Your task to perform on an android device: open a bookmark in the chrome app Image 0: 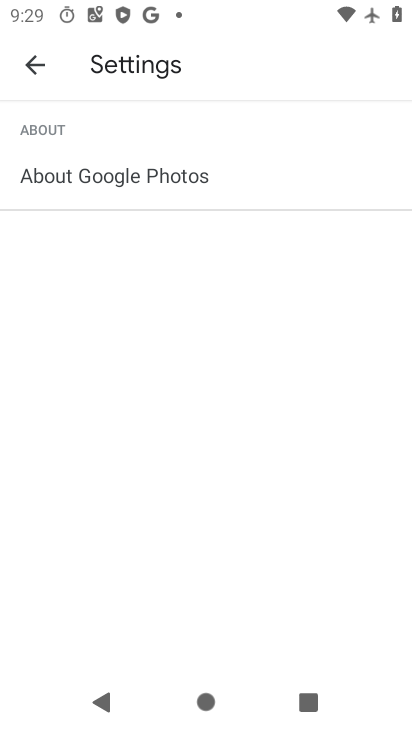
Step 0: press home button
Your task to perform on an android device: open a bookmark in the chrome app Image 1: 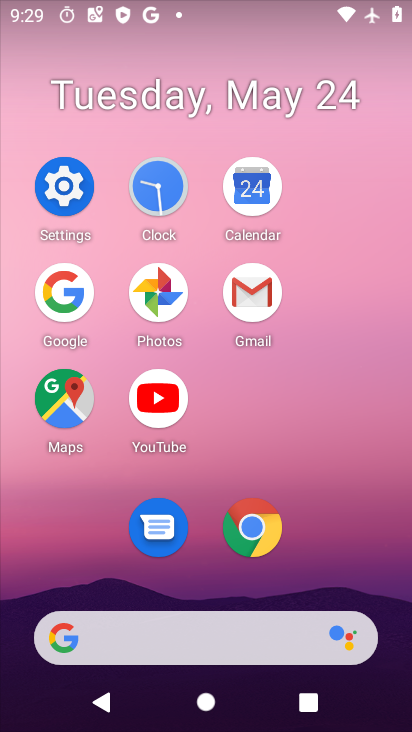
Step 1: click (260, 535)
Your task to perform on an android device: open a bookmark in the chrome app Image 2: 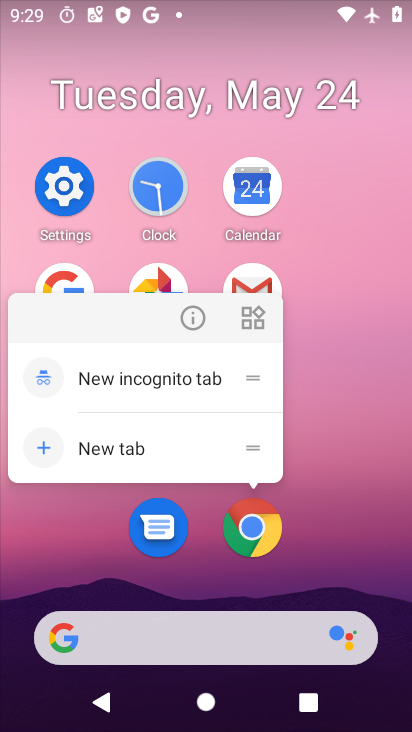
Step 2: click (250, 523)
Your task to perform on an android device: open a bookmark in the chrome app Image 3: 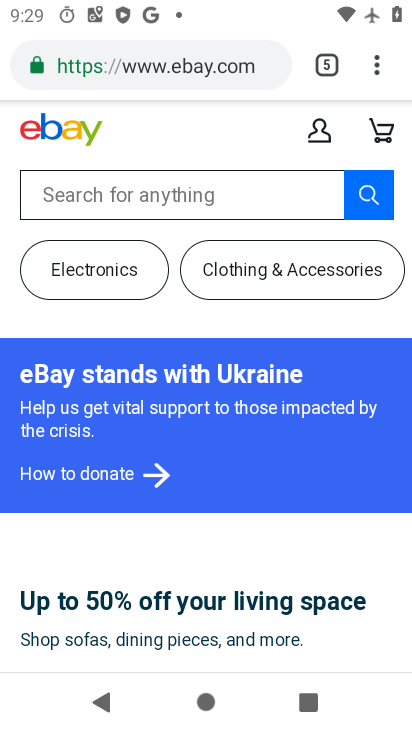
Step 3: click (379, 75)
Your task to perform on an android device: open a bookmark in the chrome app Image 4: 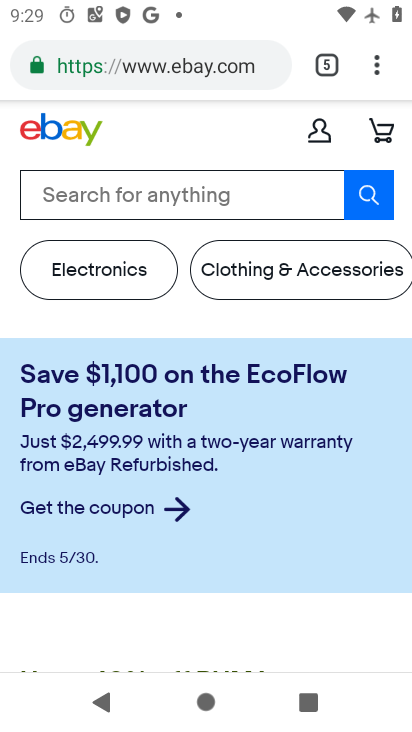
Step 4: click (373, 71)
Your task to perform on an android device: open a bookmark in the chrome app Image 5: 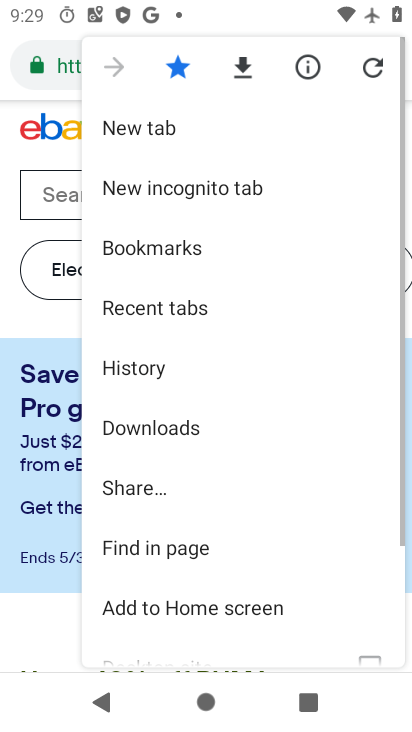
Step 5: click (227, 252)
Your task to perform on an android device: open a bookmark in the chrome app Image 6: 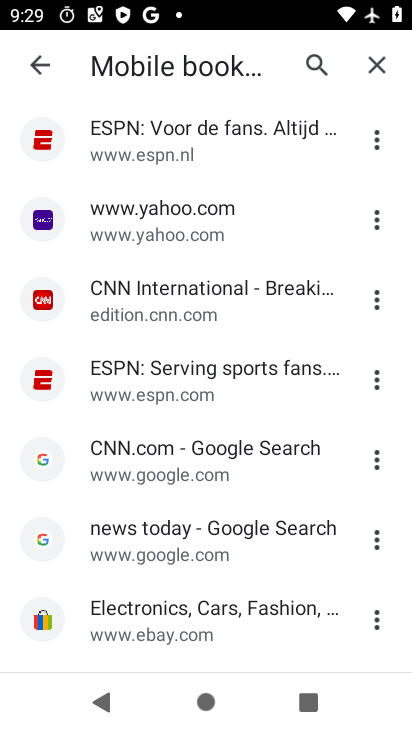
Step 6: task complete